Your task to perform on an android device: show emergency info Image 0: 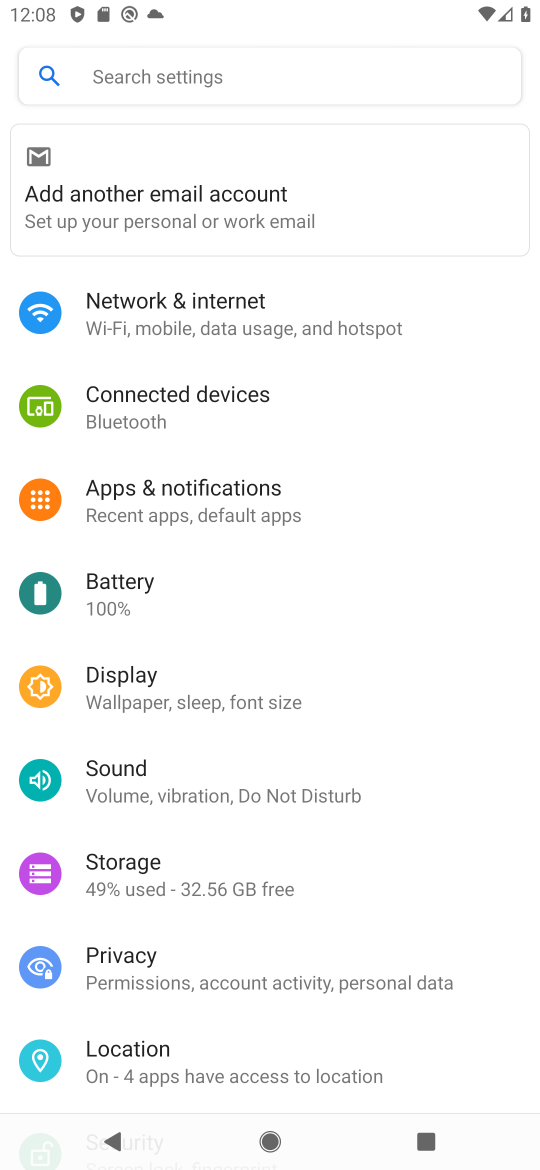
Step 0: press home button
Your task to perform on an android device: show emergency info Image 1: 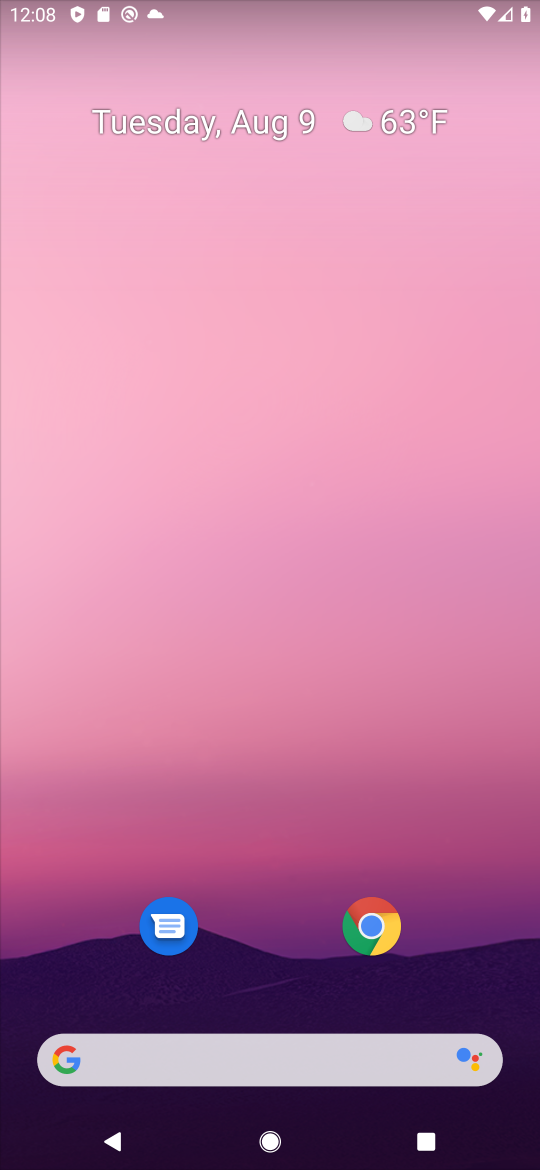
Step 1: drag from (23, 848) to (294, 118)
Your task to perform on an android device: show emergency info Image 2: 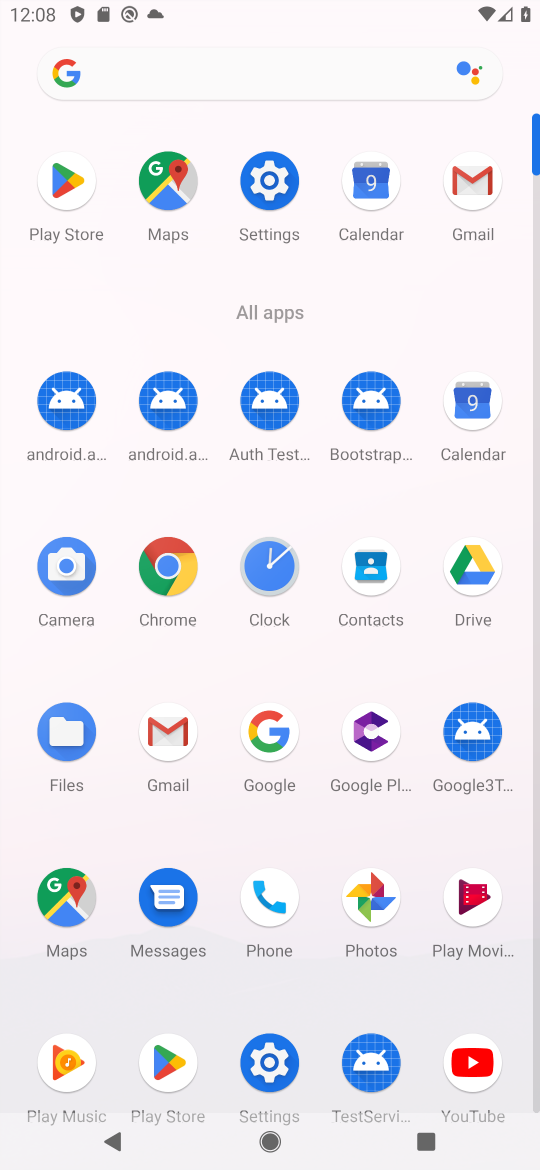
Step 2: click (261, 158)
Your task to perform on an android device: show emergency info Image 3: 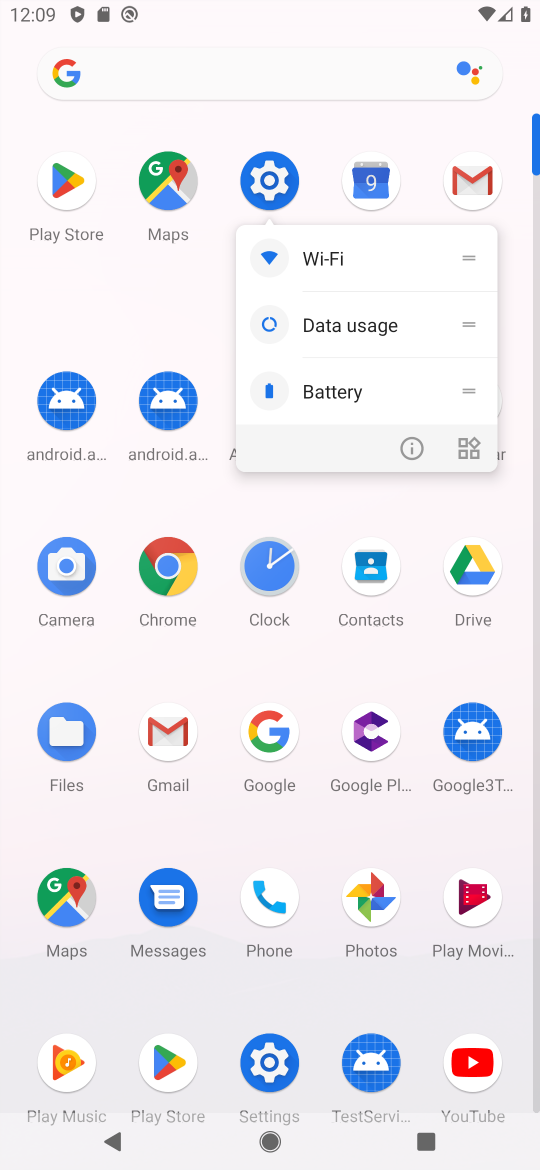
Step 3: click (251, 171)
Your task to perform on an android device: show emergency info Image 4: 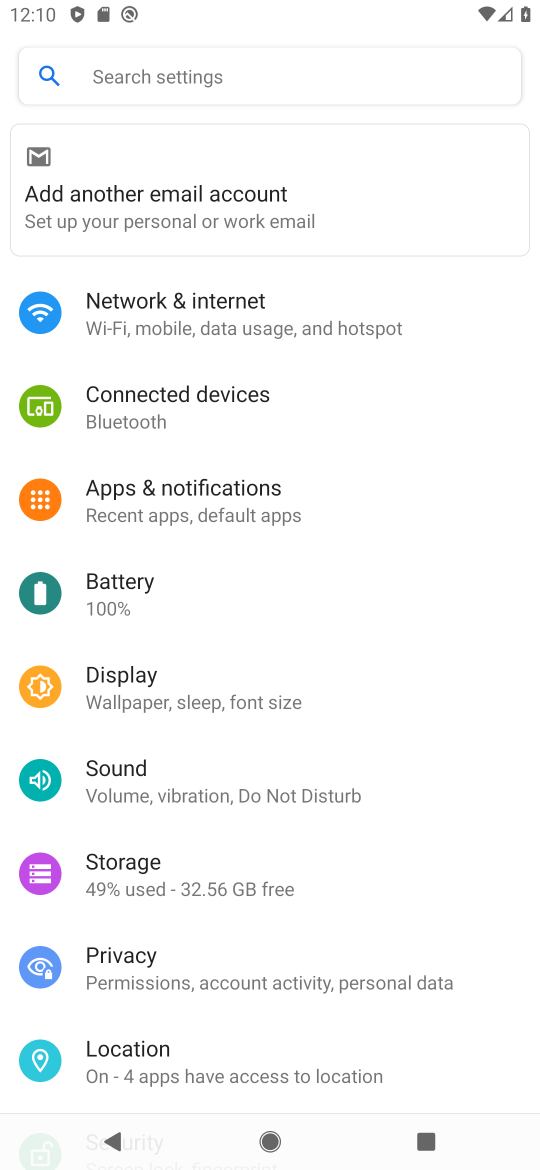
Step 4: drag from (28, 901) to (379, 125)
Your task to perform on an android device: show emergency info Image 5: 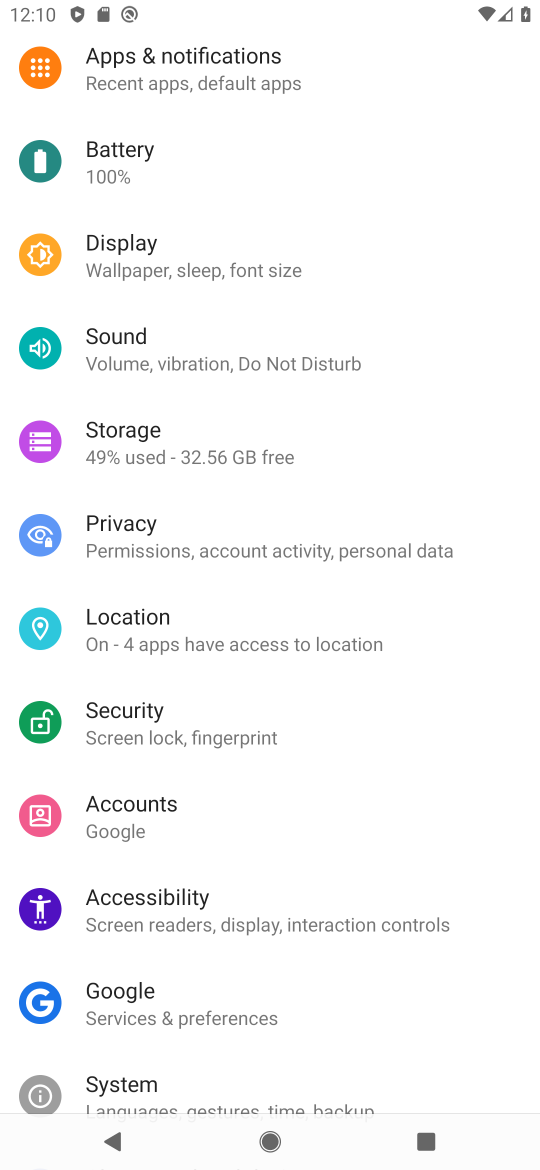
Step 5: drag from (10, 639) to (413, 168)
Your task to perform on an android device: show emergency info Image 6: 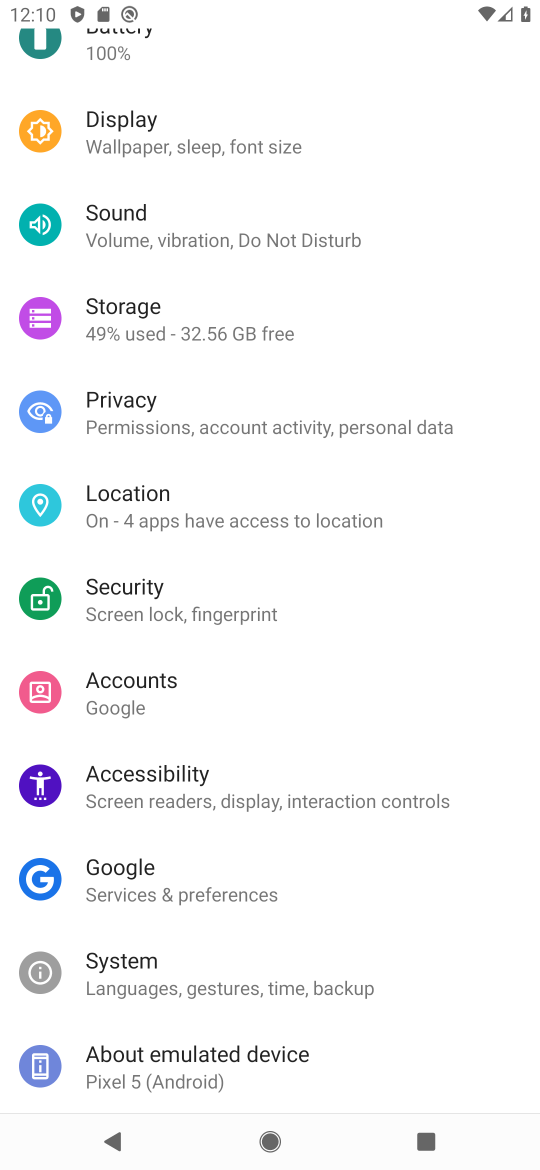
Step 6: drag from (48, 919) to (224, 515)
Your task to perform on an android device: show emergency info Image 7: 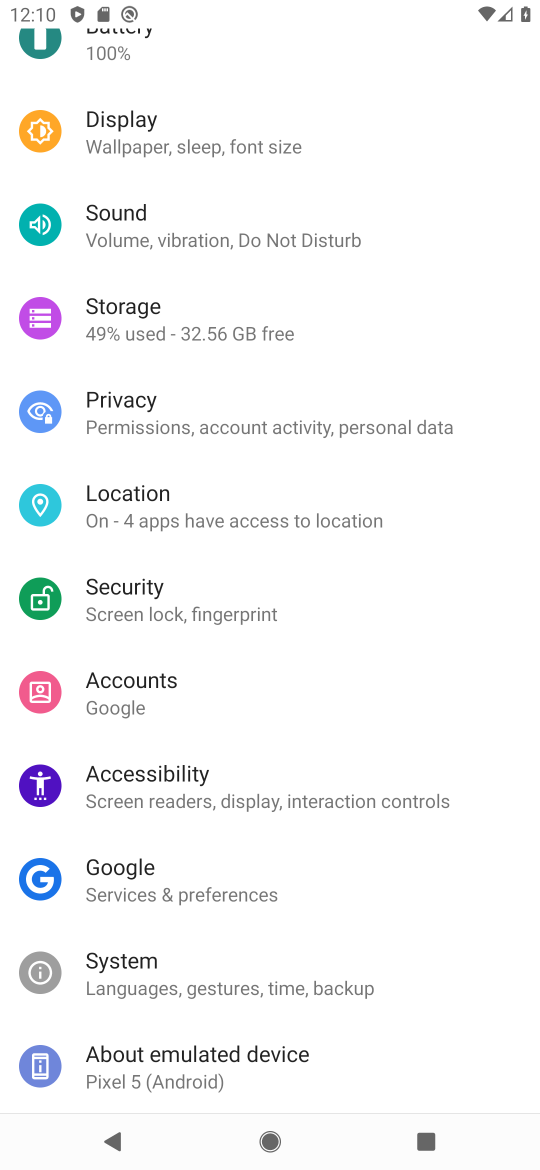
Step 7: click (272, 1054)
Your task to perform on an android device: show emergency info Image 8: 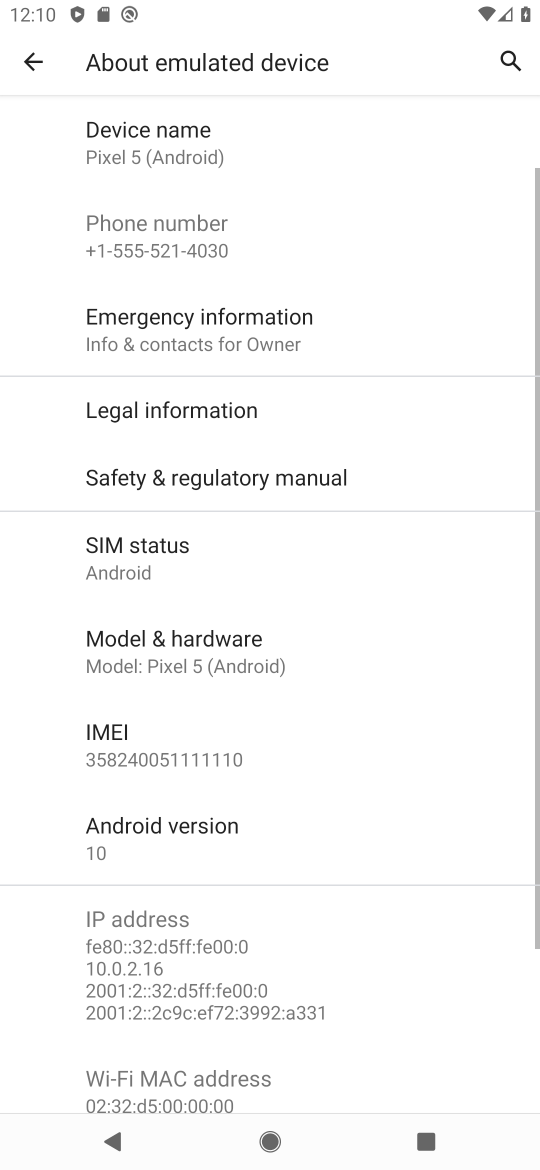
Step 8: click (216, 325)
Your task to perform on an android device: show emergency info Image 9: 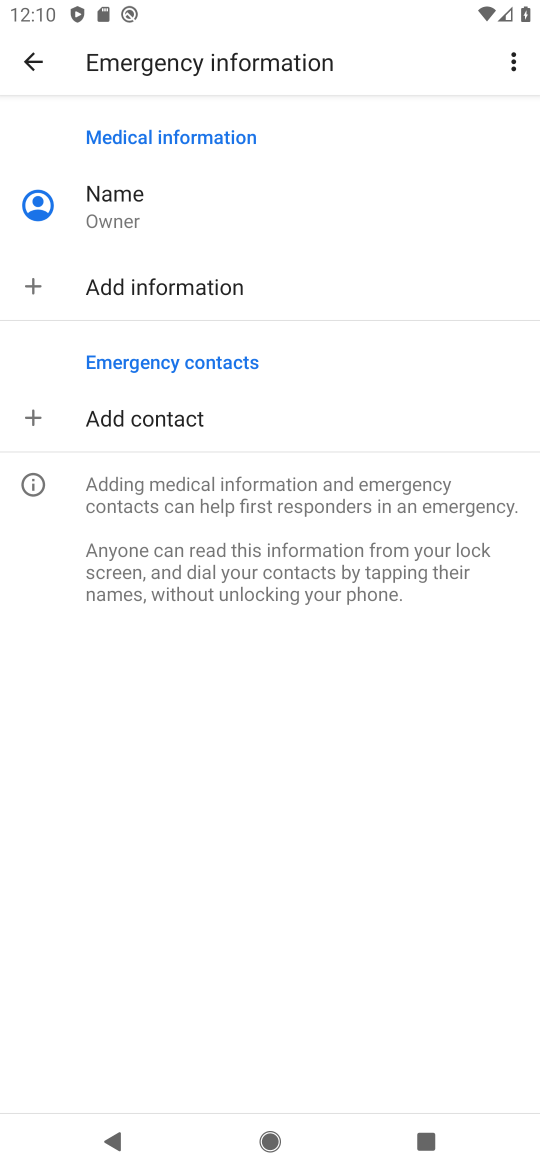
Step 9: task complete